Your task to perform on an android device: clear all cookies in the chrome app Image 0: 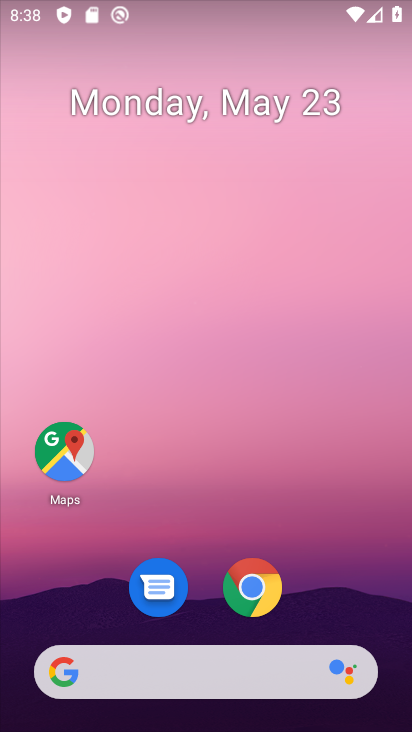
Step 0: click (244, 599)
Your task to perform on an android device: clear all cookies in the chrome app Image 1: 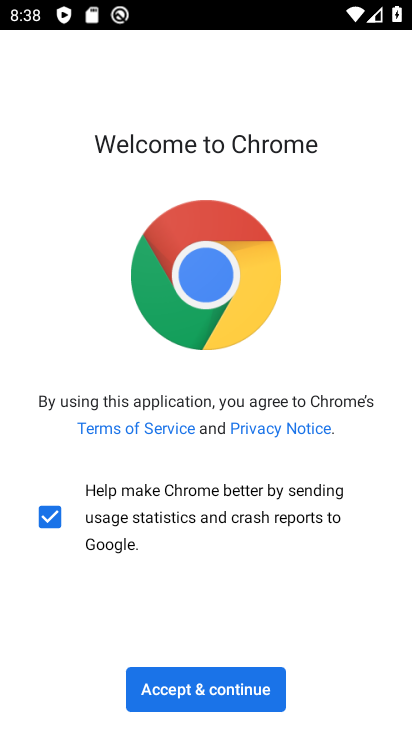
Step 1: click (235, 680)
Your task to perform on an android device: clear all cookies in the chrome app Image 2: 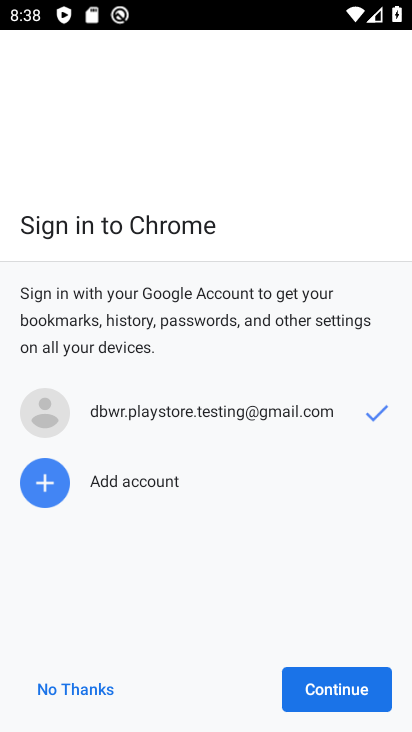
Step 2: click (313, 697)
Your task to perform on an android device: clear all cookies in the chrome app Image 3: 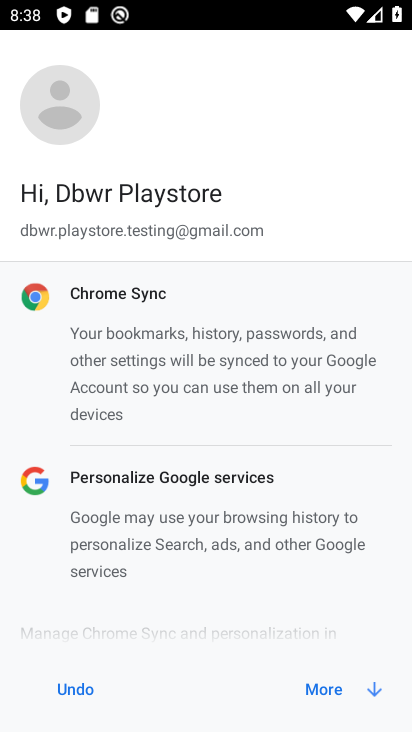
Step 3: click (344, 693)
Your task to perform on an android device: clear all cookies in the chrome app Image 4: 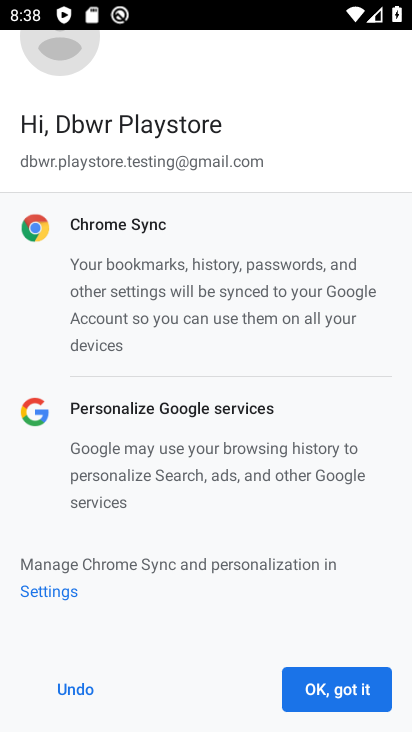
Step 4: click (344, 693)
Your task to perform on an android device: clear all cookies in the chrome app Image 5: 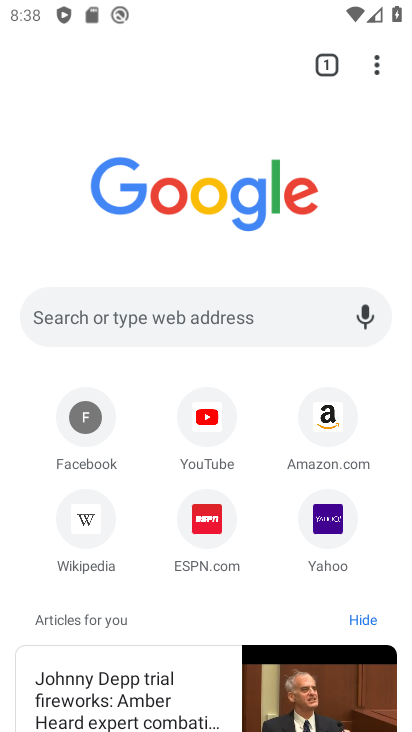
Step 5: click (386, 68)
Your task to perform on an android device: clear all cookies in the chrome app Image 6: 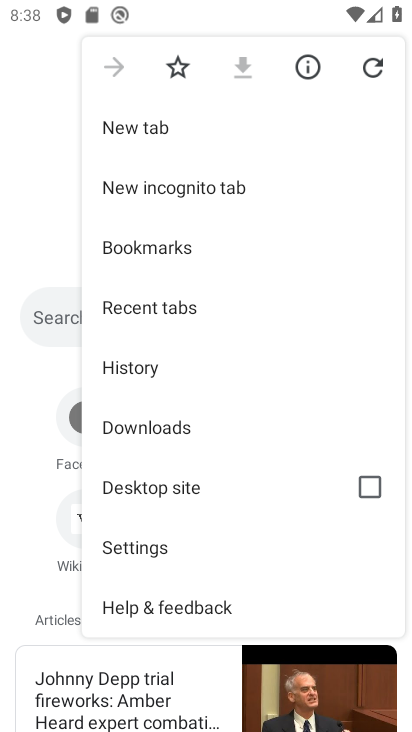
Step 6: click (152, 372)
Your task to perform on an android device: clear all cookies in the chrome app Image 7: 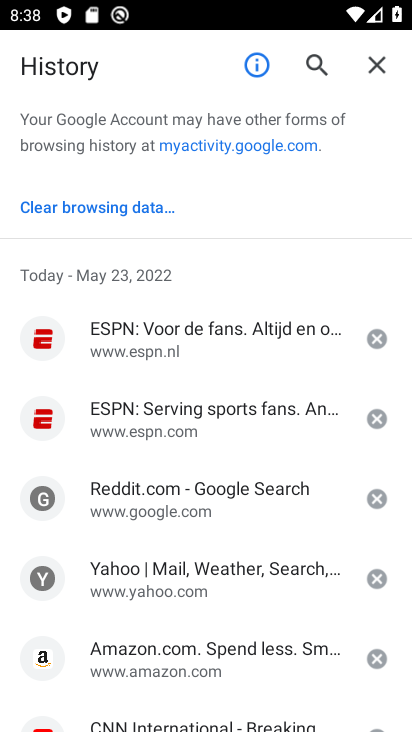
Step 7: click (131, 214)
Your task to perform on an android device: clear all cookies in the chrome app Image 8: 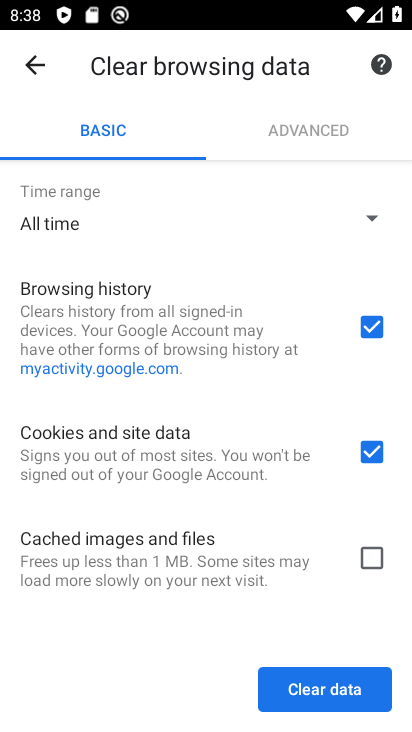
Step 8: click (366, 216)
Your task to perform on an android device: clear all cookies in the chrome app Image 9: 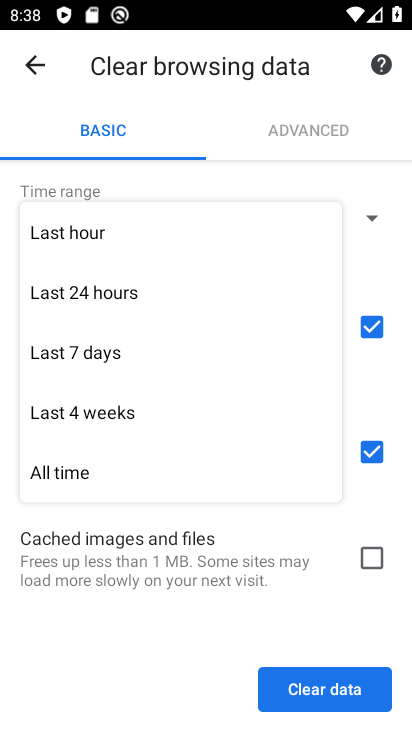
Step 9: click (69, 459)
Your task to perform on an android device: clear all cookies in the chrome app Image 10: 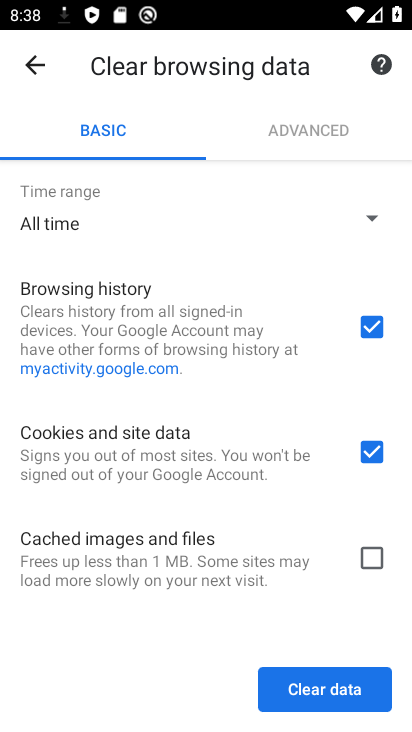
Step 10: click (296, 678)
Your task to perform on an android device: clear all cookies in the chrome app Image 11: 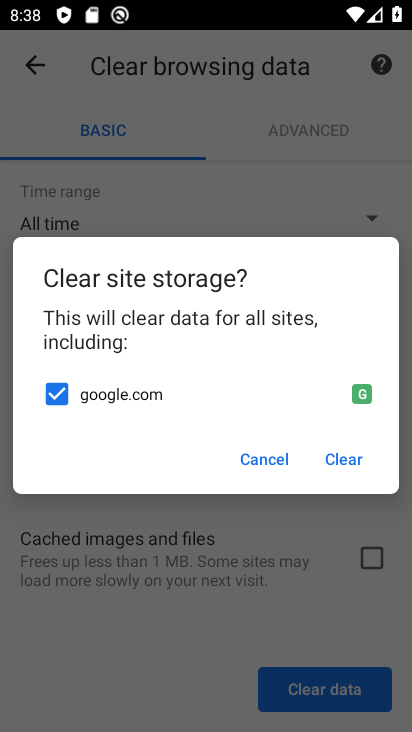
Step 11: click (347, 450)
Your task to perform on an android device: clear all cookies in the chrome app Image 12: 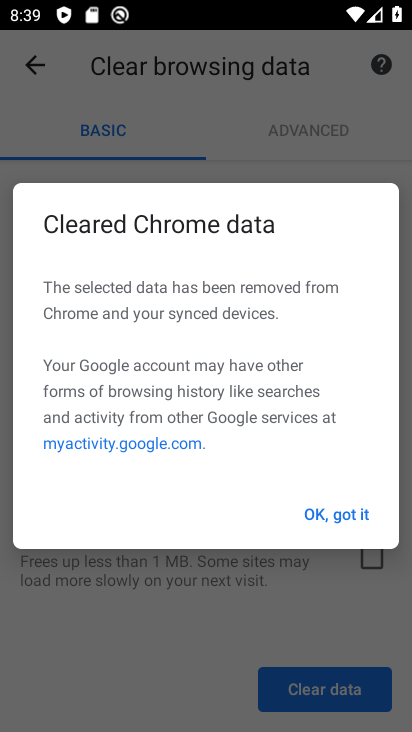
Step 12: click (339, 519)
Your task to perform on an android device: clear all cookies in the chrome app Image 13: 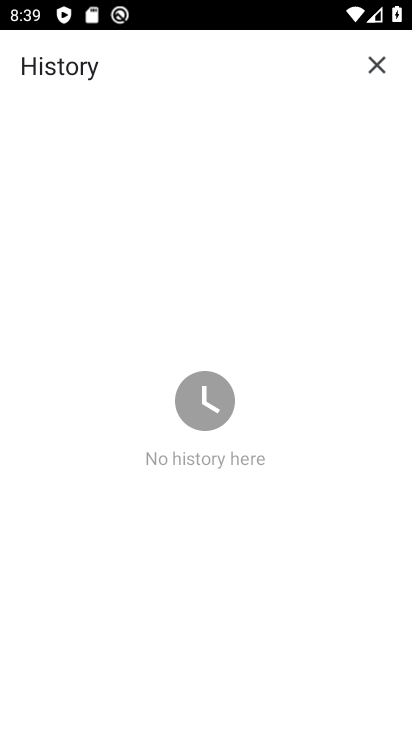
Step 13: task complete